Your task to perform on an android device: check storage Image 0: 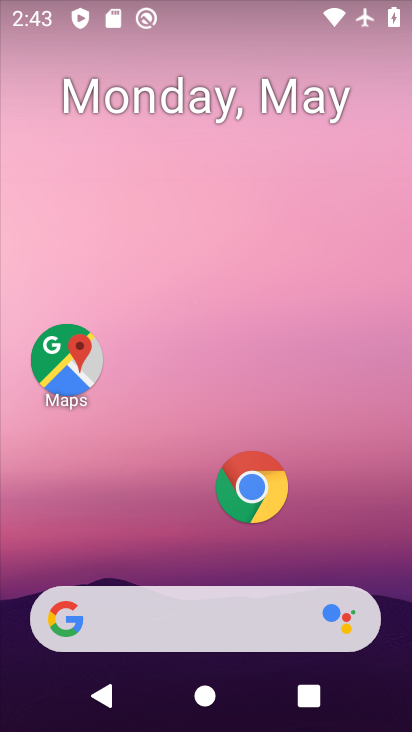
Step 0: drag from (186, 499) to (307, 0)
Your task to perform on an android device: check storage Image 1: 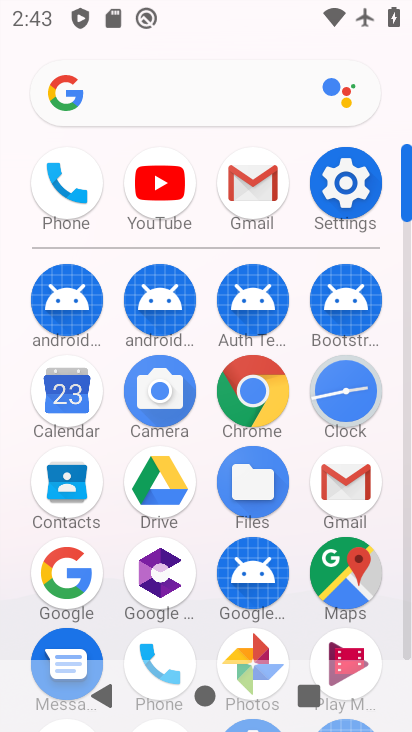
Step 1: click (338, 173)
Your task to perform on an android device: check storage Image 2: 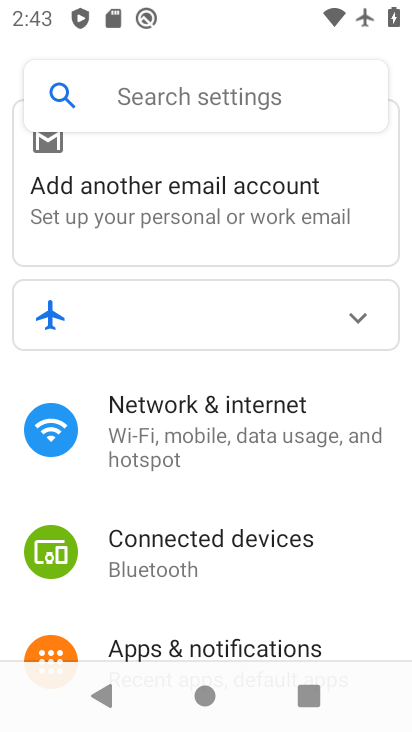
Step 2: drag from (194, 554) to (255, 175)
Your task to perform on an android device: check storage Image 3: 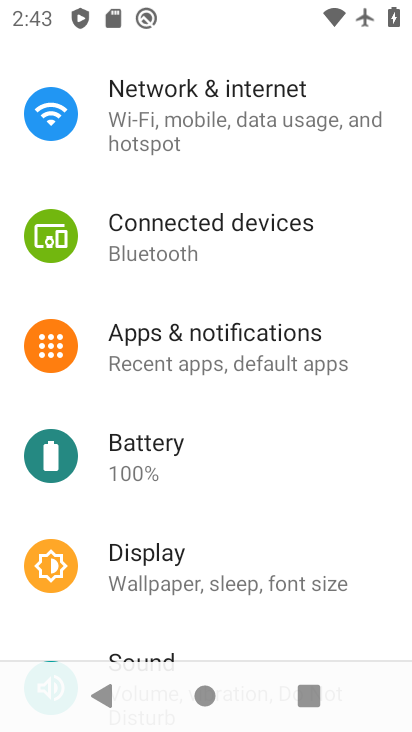
Step 3: drag from (164, 484) to (240, 228)
Your task to perform on an android device: check storage Image 4: 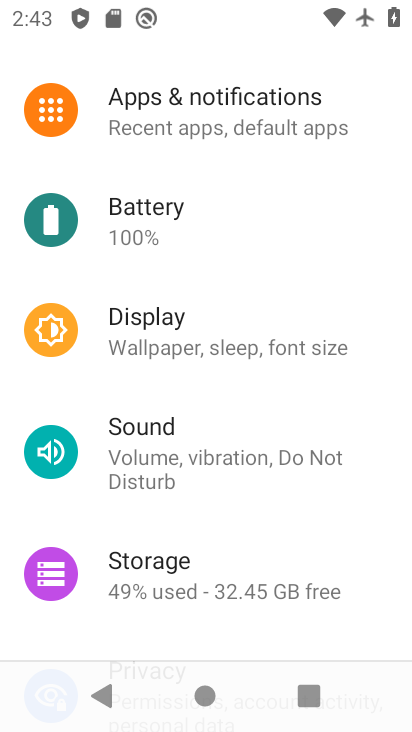
Step 4: click (223, 573)
Your task to perform on an android device: check storage Image 5: 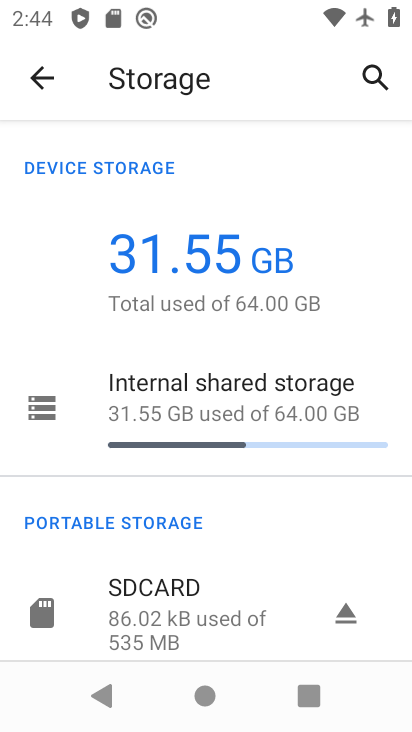
Step 5: task complete